Your task to perform on an android device: turn off priority inbox in the gmail app Image 0: 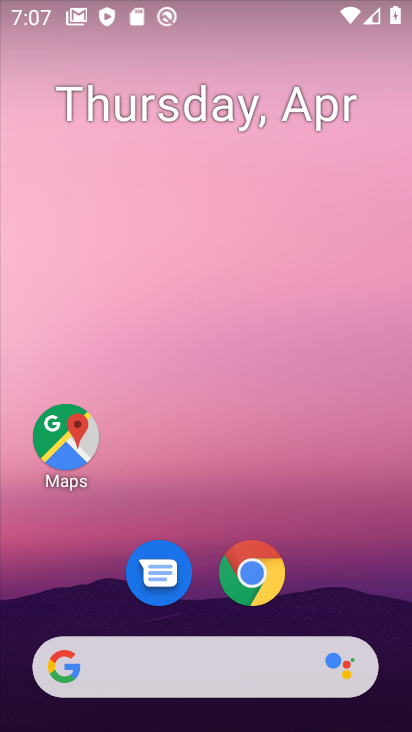
Step 0: click (392, 350)
Your task to perform on an android device: turn off priority inbox in the gmail app Image 1: 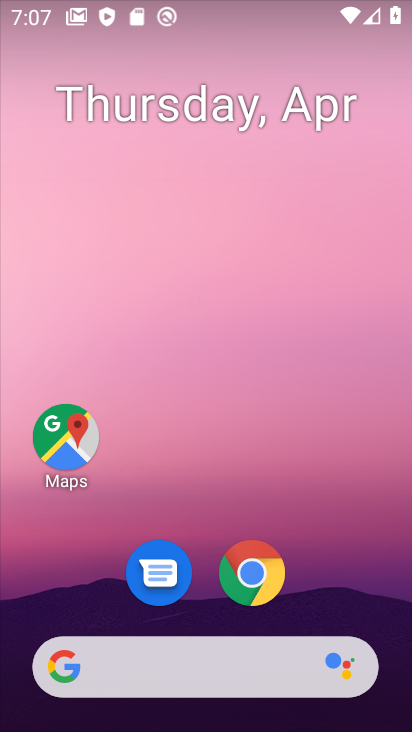
Step 1: click (376, 303)
Your task to perform on an android device: turn off priority inbox in the gmail app Image 2: 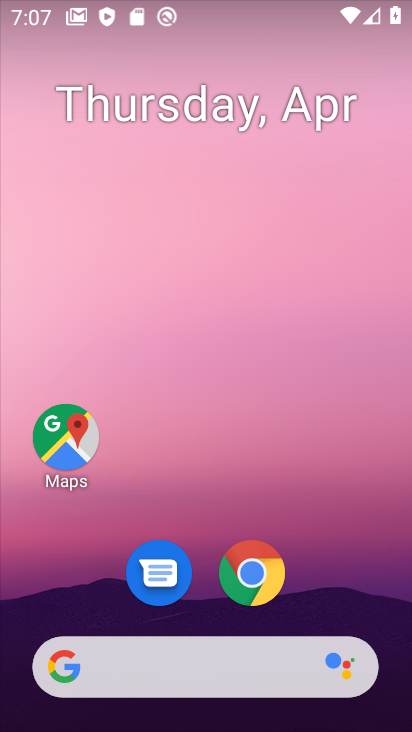
Step 2: drag from (405, 302) to (403, 142)
Your task to perform on an android device: turn off priority inbox in the gmail app Image 3: 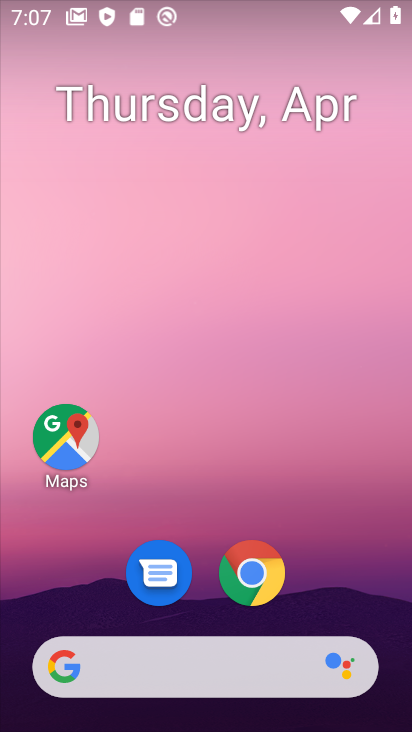
Step 3: drag from (379, 612) to (374, 87)
Your task to perform on an android device: turn off priority inbox in the gmail app Image 4: 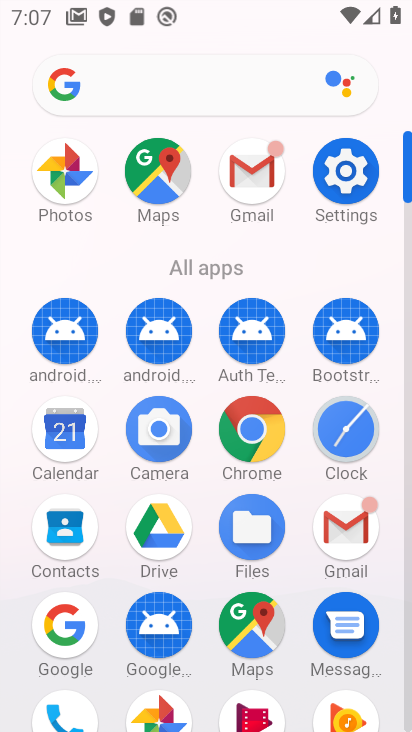
Step 4: click (334, 543)
Your task to perform on an android device: turn off priority inbox in the gmail app Image 5: 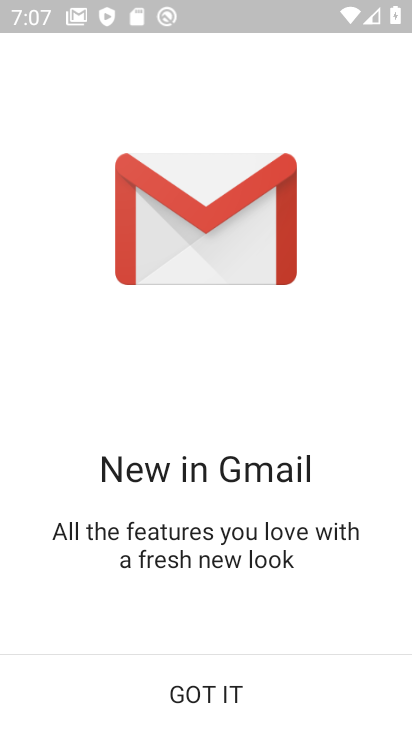
Step 5: click (185, 687)
Your task to perform on an android device: turn off priority inbox in the gmail app Image 6: 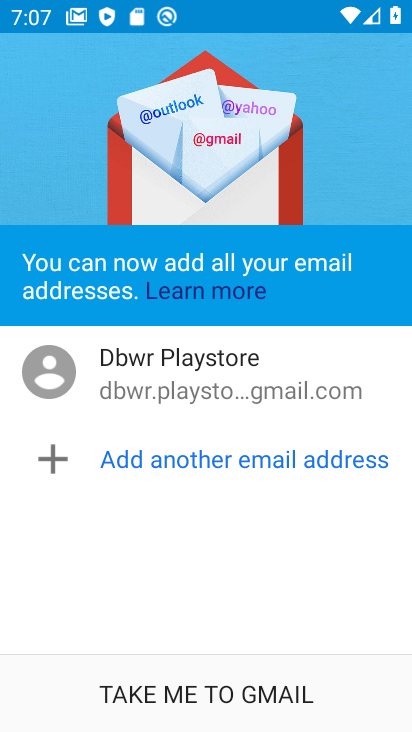
Step 6: click (185, 687)
Your task to perform on an android device: turn off priority inbox in the gmail app Image 7: 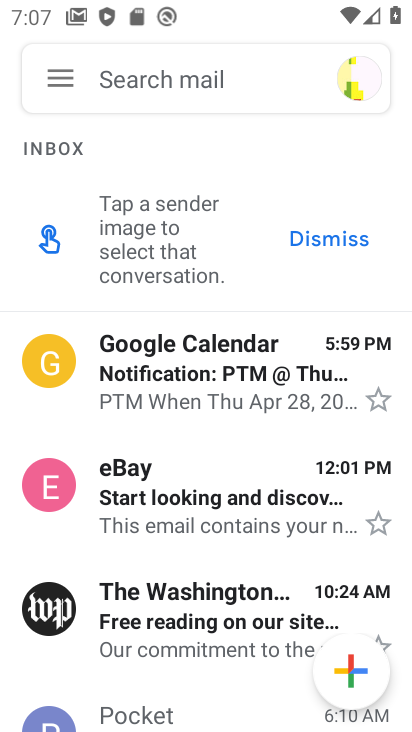
Step 7: click (57, 79)
Your task to perform on an android device: turn off priority inbox in the gmail app Image 8: 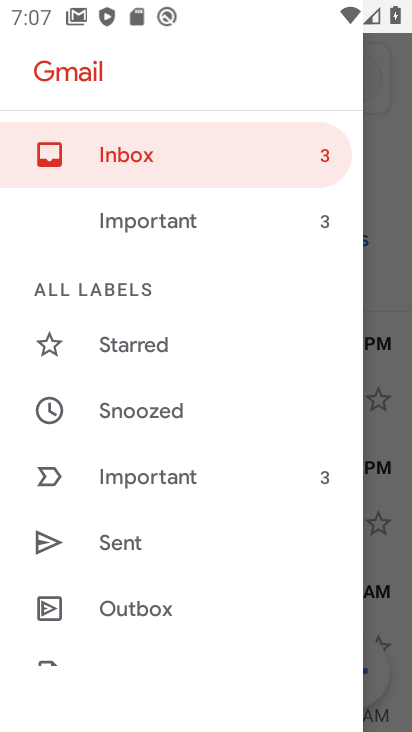
Step 8: drag from (227, 517) to (229, 320)
Your task to perform on an android device: turn off priority inbox in the gmail app Image 9: 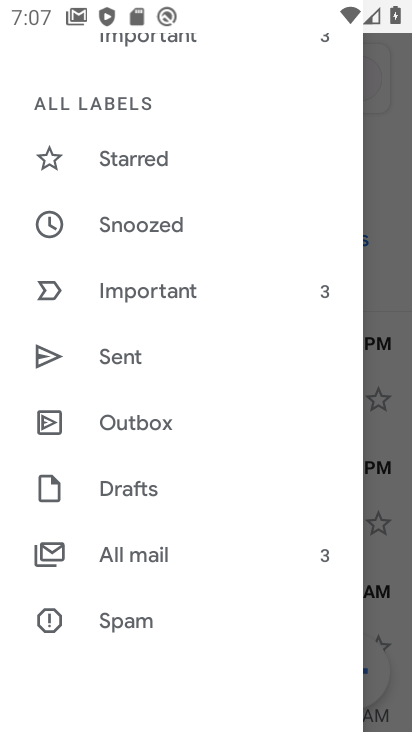
Step 9: drag from (251, 394) to (255, 334)
Your task to perform on an android device: turn off priority inbox in the gmail app Image 10: 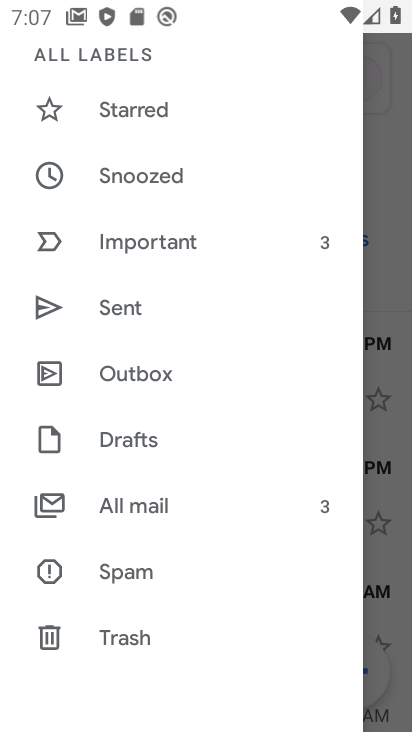
Step 10: drag from (248, 641) to (269, 328)
Your task to perform on an android device: turn off priority inbox in the gmail app Image 11: 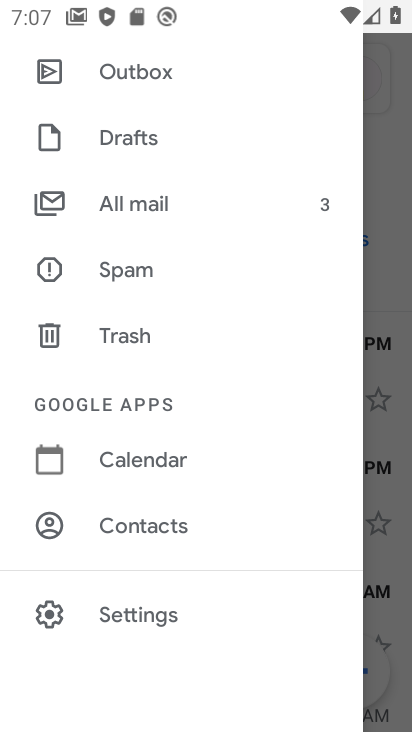
Step 11: click (106, 616)
Your task to perform on an android device: turn off priority inbox in the gmail app Image 12: 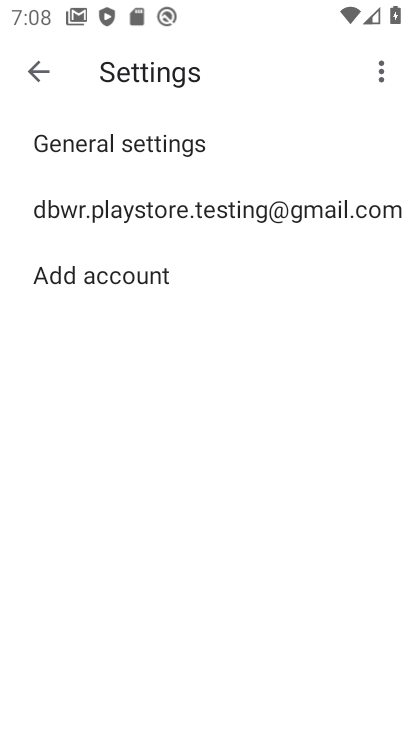
Step 12: click (100, 208)
Your task to perform on an android device: turn off priority inbox in the gmail app Image 13: 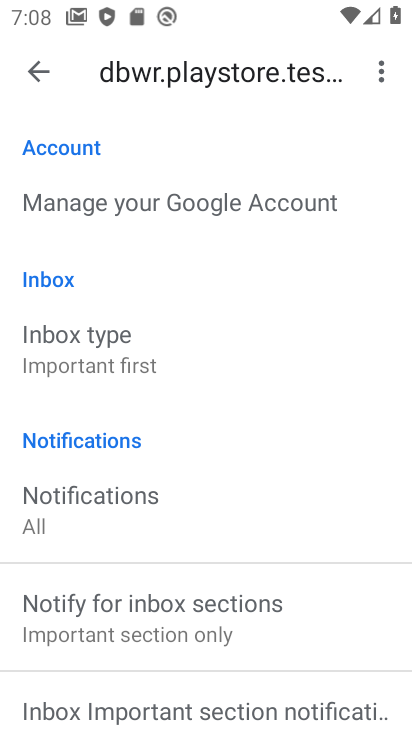
Step 13: click (86, 344)
Your task to perform on an android device: turn off priority inbox in the gmail app Image 14: 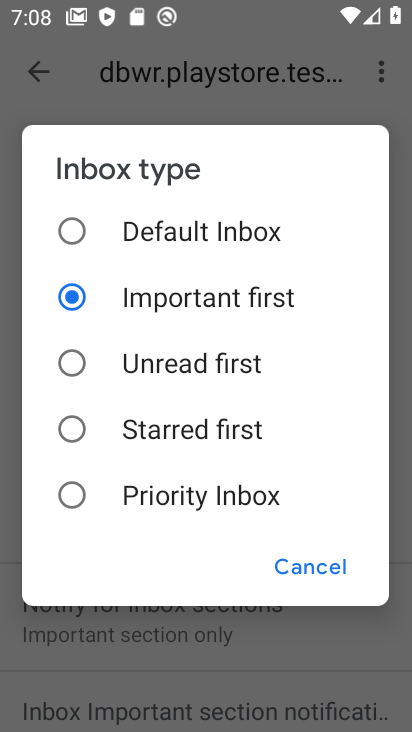
Step 14: task complete